Your task to perform on an android device: clear history in the chrome app Image 0: 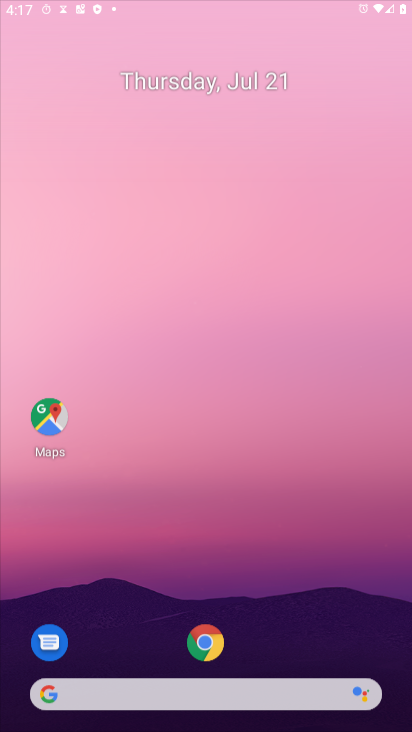
Step 0: press home button
Your task to perform on an android device: clear history in the chrome app Image 1: 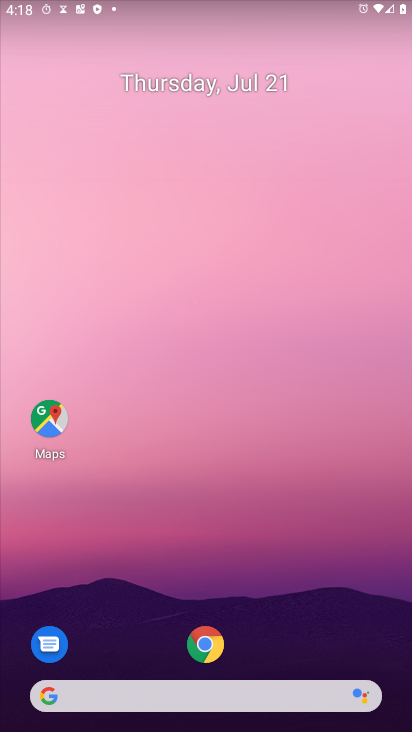
Step 1: drag from (264, 623) to (263, 65)
Your task to perform on an android device: clear history in the chrome app Image 2: 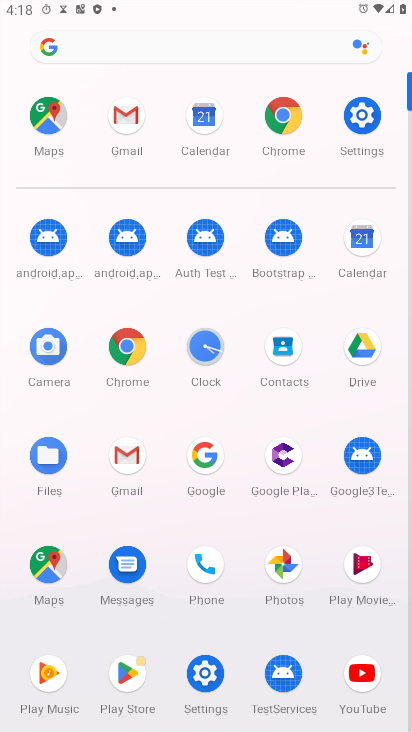
Step 2: click (284, 123)
Your task to perform on an android device: clear history in the chrome app Image 3: 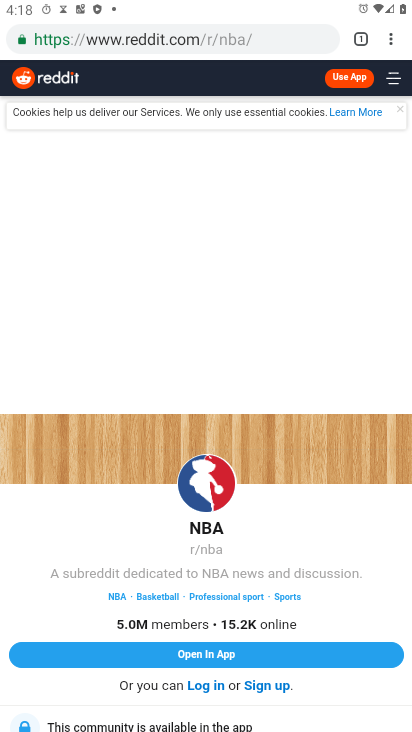
Step 3: click (388, 37)
Your task to perform on an android device: clear history in the chrome app Image 4: 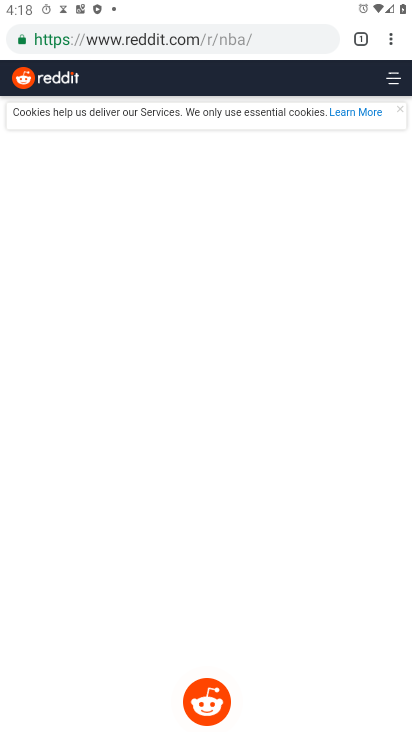
Step 4: drag from (390, 39) to (253, 281)
Your task to perform on an android device: clear history in the chrome app Image 5: 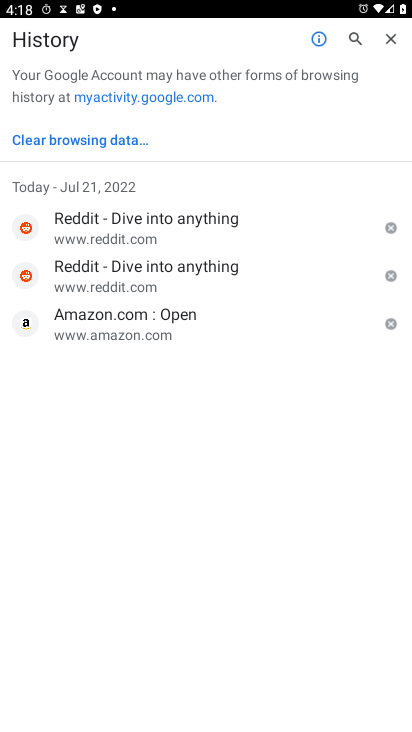
Step 5: click (66, 142)
Your task to perform on an android device: clear history in the chrome app Image 6: 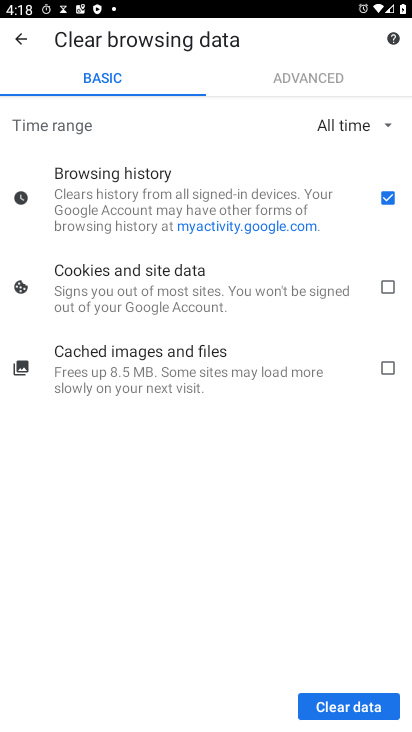
Step 6: click (344, 699)
Your task to perform on an android device: clear history in the chrome app Image 7: 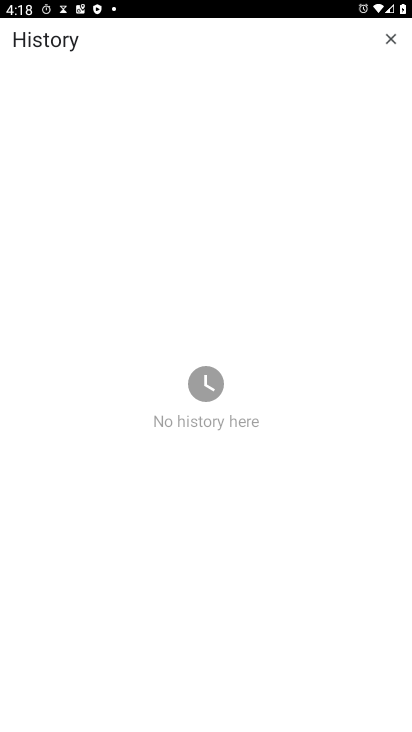
Step 7: task complete